Your task to perform on an android device: Open the phone app and click the voicemail tab. Image 0: 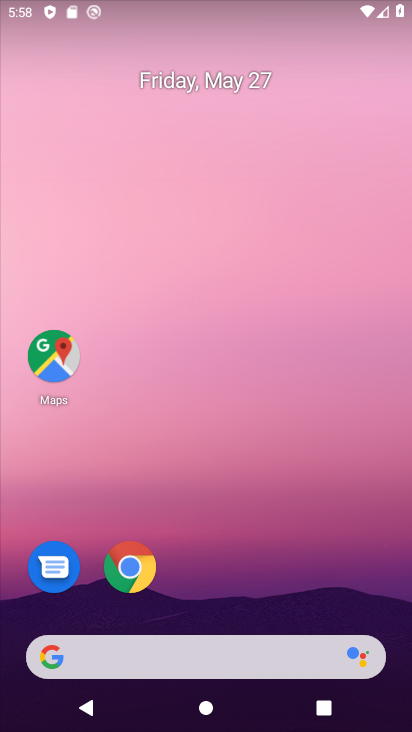
Step 0: drag from (197, 573) to (216, 103)
Your task to perform on an android device: Open the phone app and click the voicemail tab. Image 1: 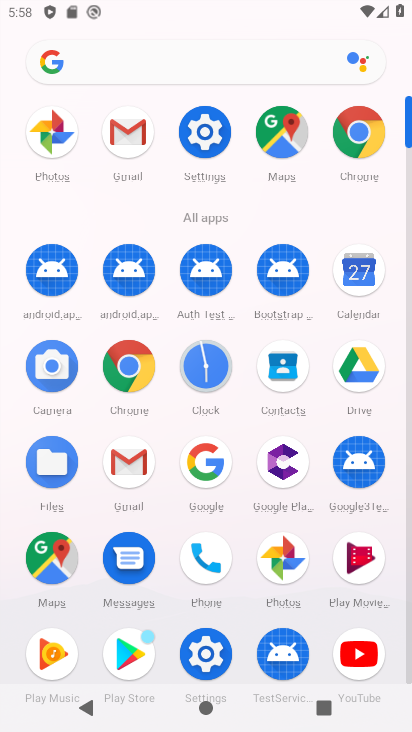
Step 1: click (197, 576)
Your task to perform on an android device: Open the phone app and click the voicemail tab. Image 2: 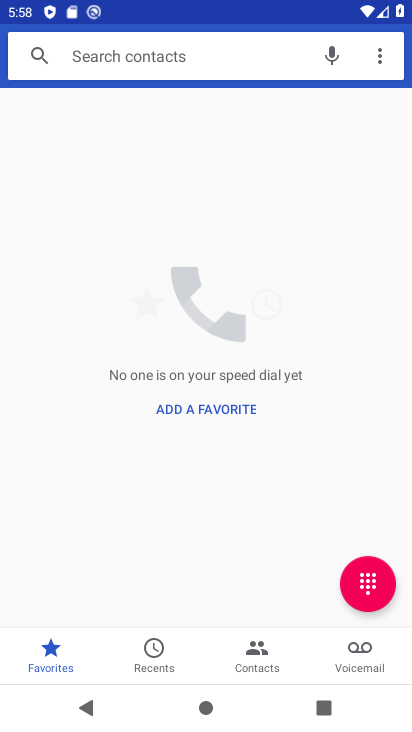
Step 2: click (361, 667)
Your task to perform on an android device: Open the phone app and click the voicemail tab. Image 3: 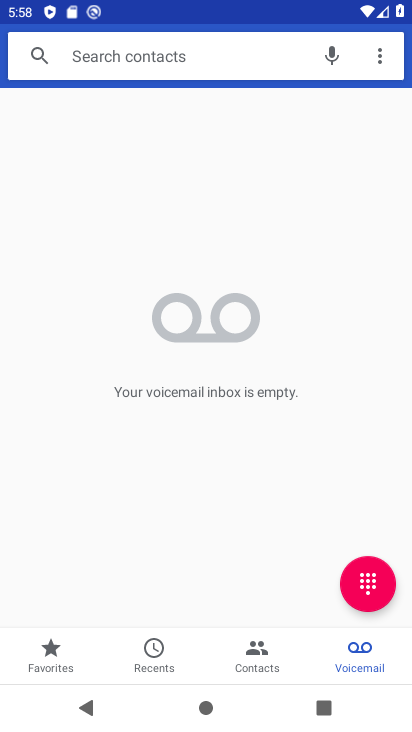
Step 3: task complete